Your task to perform on an android device: turn on improve location accuracy Image 0: 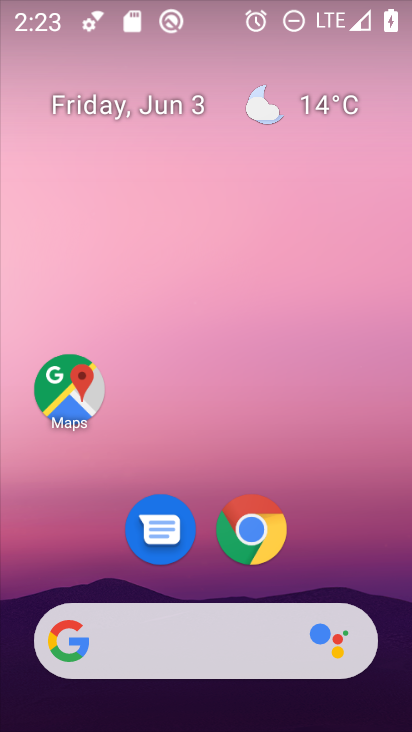
Step 0: drag from (370, 483) to (354, 120)
Your task to perform on an android device: turn on improve location accuracy Image 1: 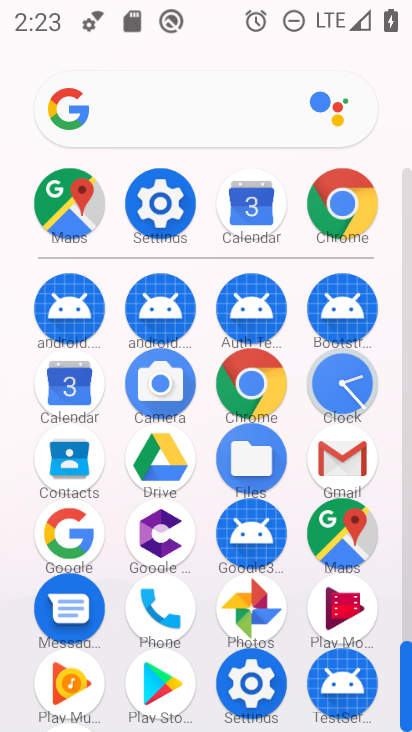
Step 1: click (170, 217)
Your task to perform on an android device: turn on improve location accuracy Image 2: 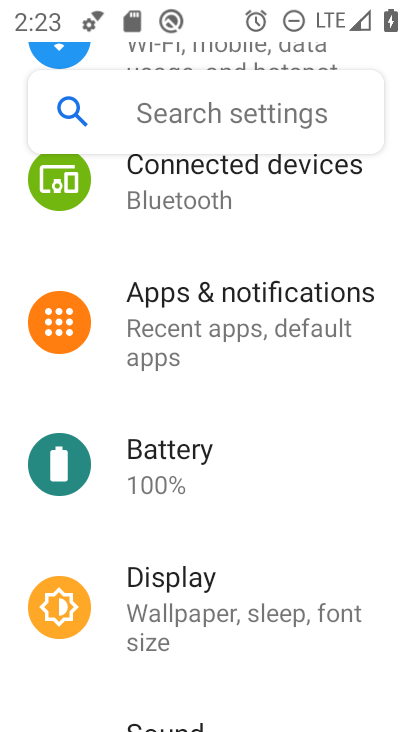
Step 2: drag from (335, 477) to (353, 350)
Your task to perform on an android device: turn on improve location accuracy Image 3: 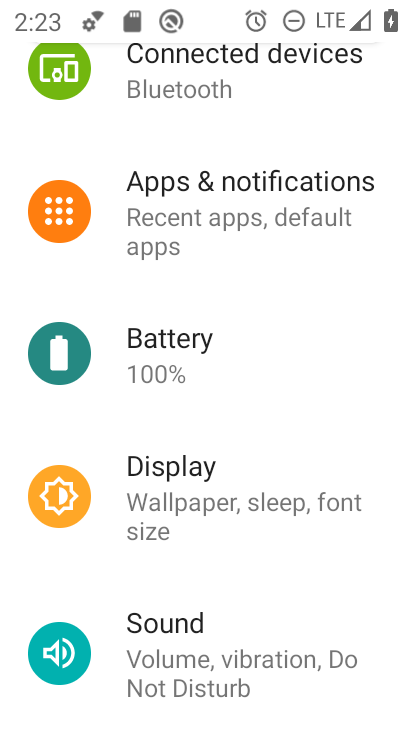
Step 3: drag from (359, 547) to (359, 418)
Your task to perform on an android device: turn on improve location accuracy Image 4: 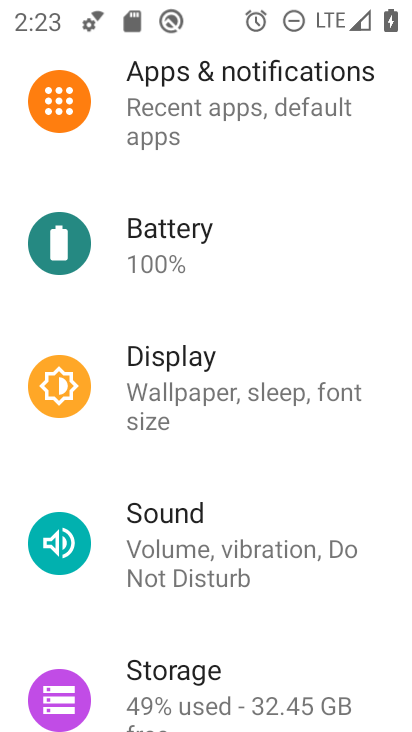
Step 4: drag from (375, 536) to (374, 409)
Your task to perform on an android device: turn on improve location accuracy Image 5: 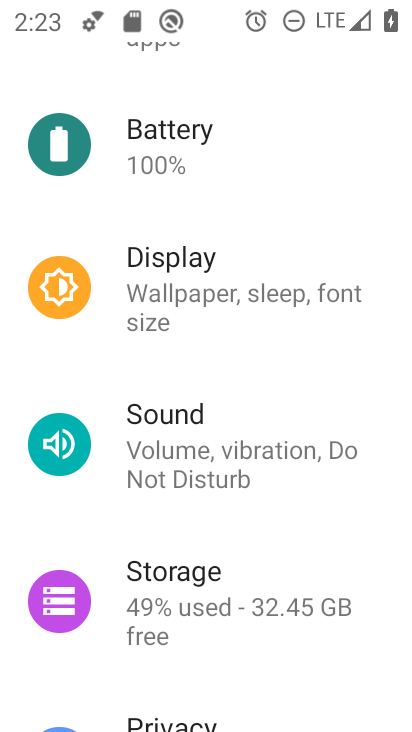
Step 5: drag from (373, 550) to (372, 425)
Your task to perform on an android device: turn on improve location accuracy Image 6: 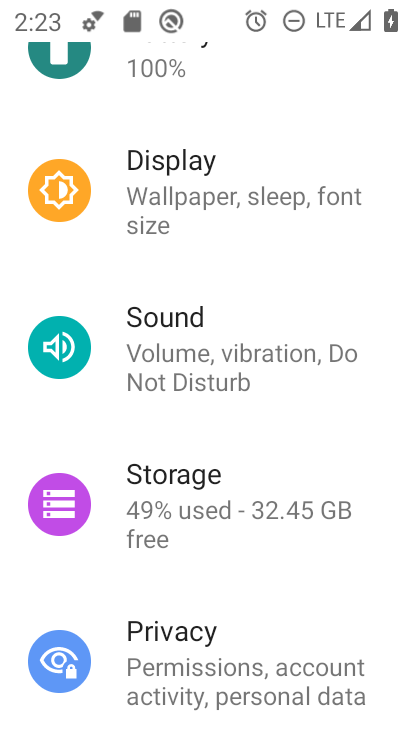
Step 6: drag from (369, 572) to (373, 441)
Your task to perform on an android device: turn on improve location accuracy Image 7: 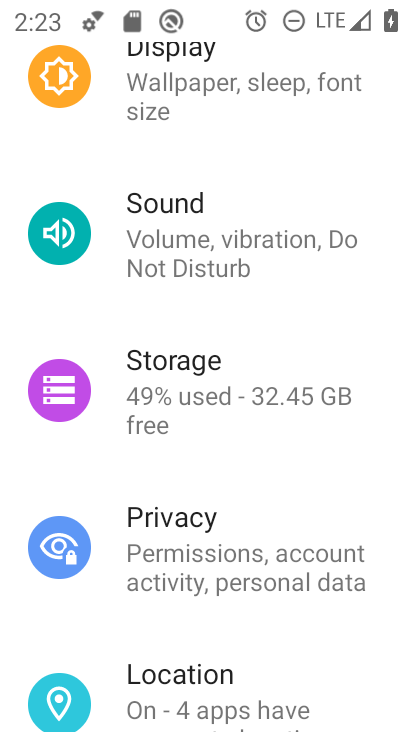
Step 7: drag from (372, 615) to (365, 462)
Your task to perform on an android device: turn on improve location accuracy Image 8: 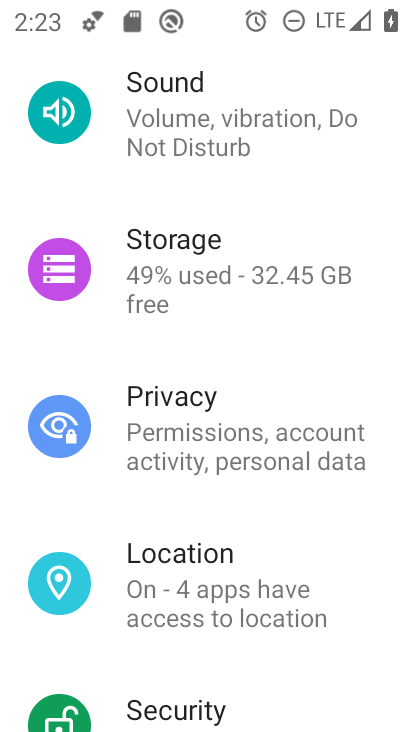
Step 8: drag from (372, 592) to (369, 455)
Your task to perform on an android device: turn on improve location accuracy Image 9: 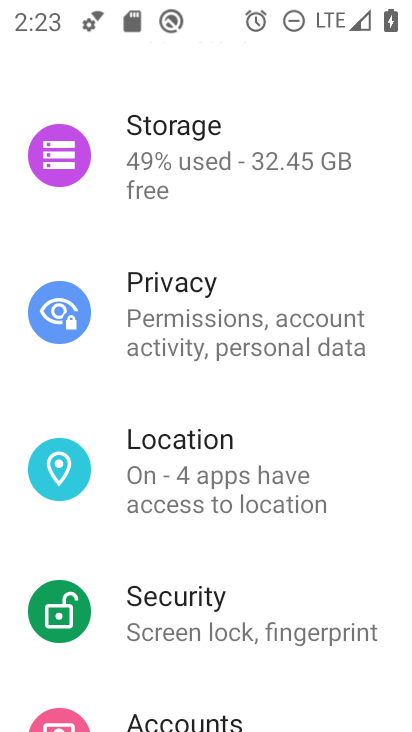
Step 9: drag from (350, 502) to (370, 376)
Your task to perform on an android device: turn on improve location accuracy Image 10: 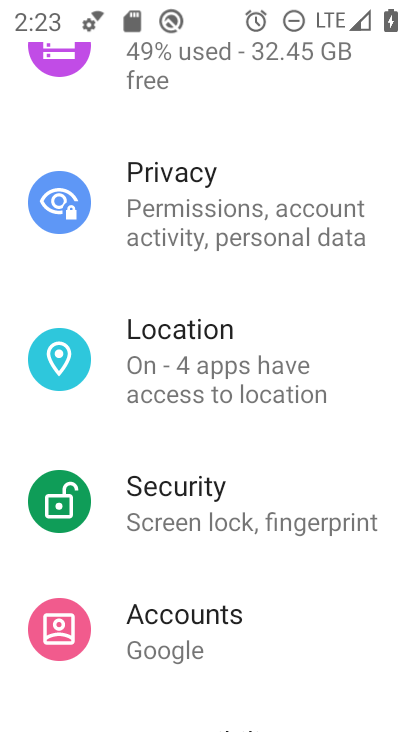
Step 10: drag from (366, 472) to (372, 371)
Your task to perform on an android device: turn on improve location accuracy Image 11: 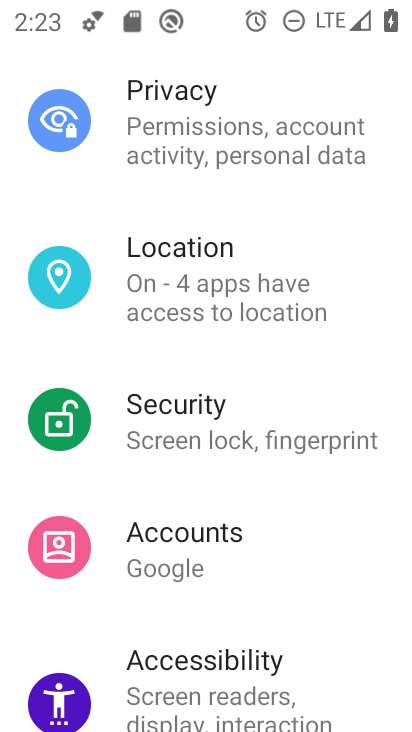
Step 11: click (266, 297)
Your task to perform on an android device: turn on improve location accuracy Image 12: 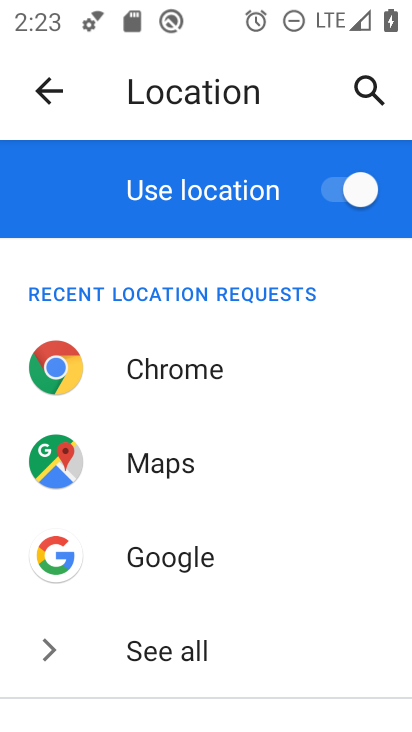
Step 12: drag from (307, 559) to (298, 477)
Your task to perform on an android device: turn on improve location accuracy Image 13: 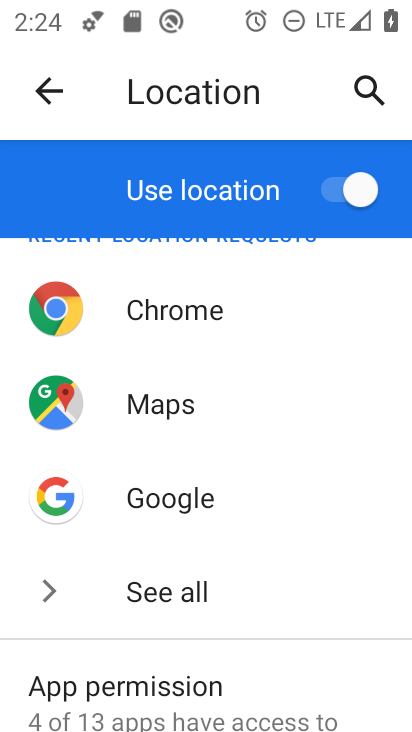
Step 13: drag from (279, 617) to (293, 457)
Your task to perform on an android device: turn on improve location accuracy Image 14: 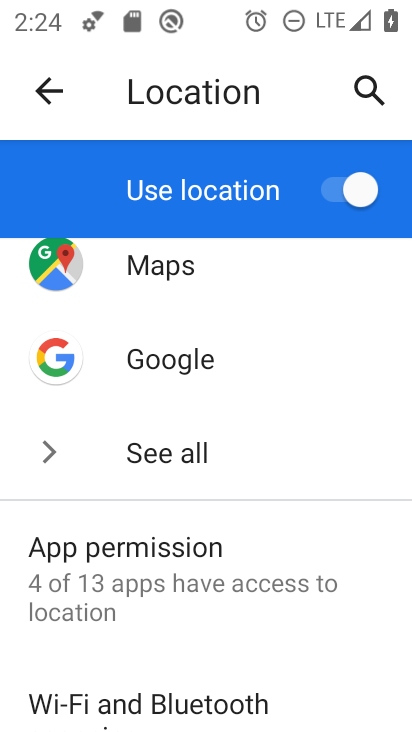
Step 14: drag from (291, 630) to (293, 512)
Your task to perform on an android device: turn on improve location accuracy Image 15: 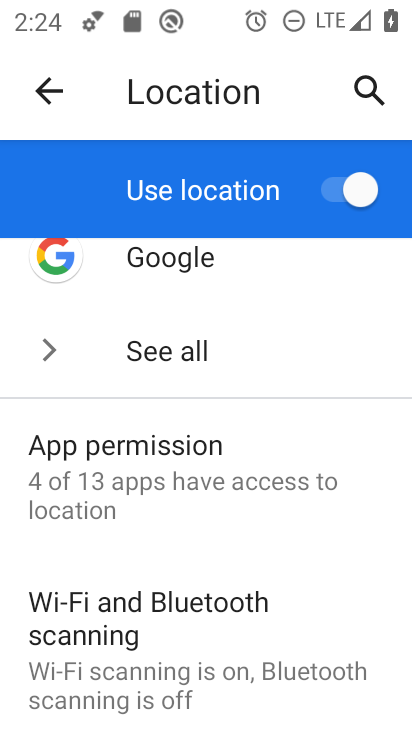
Step 15: drag from (286, 623) to (288, 479)
Your task to perform on an android device: turn on improve location accuracy Image 16: 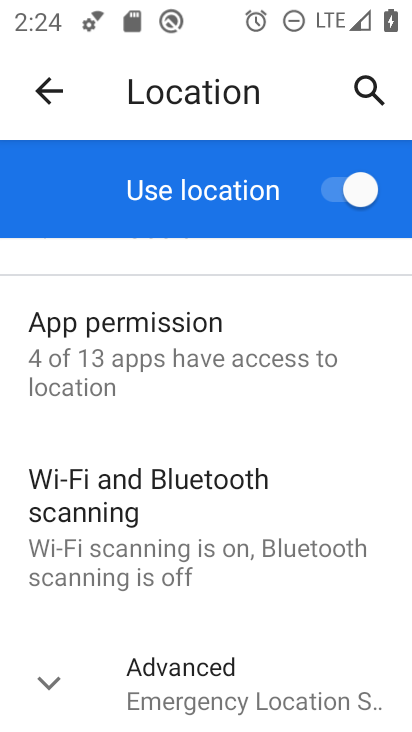
Step 16: drag from (282, 626) to (298, 404)
Your task to perform on an android device: turn on improve location accuracy Image 17: 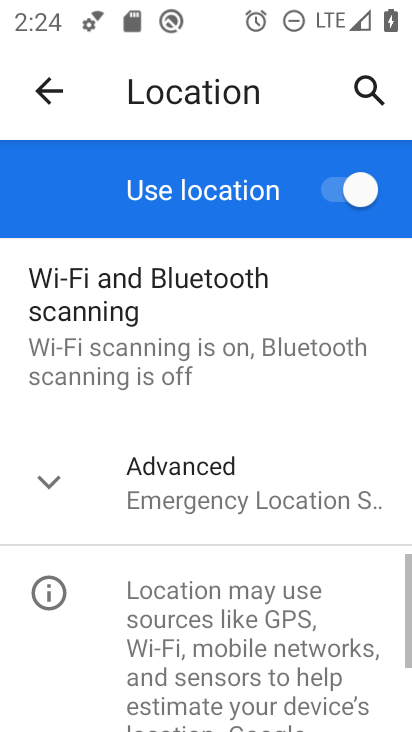
Step 17: click (292, 524)
Your task to perform on an android device: turn on improve location accuracy Image 18: 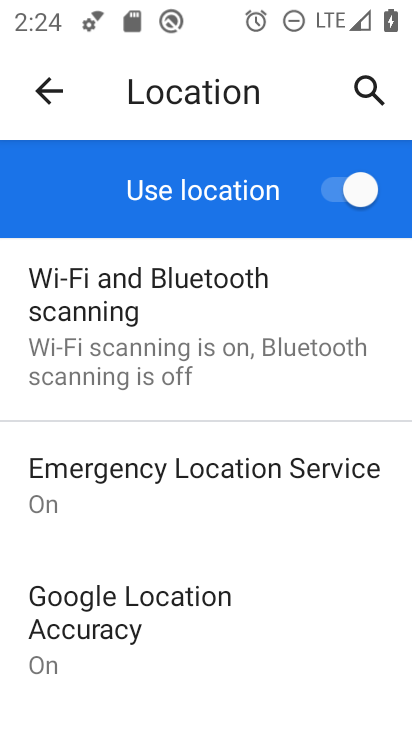
Step 18: drag from (306, 586) to (324, 464)
Your task to perform on an android device: turn on improve location accuracy Image 19: 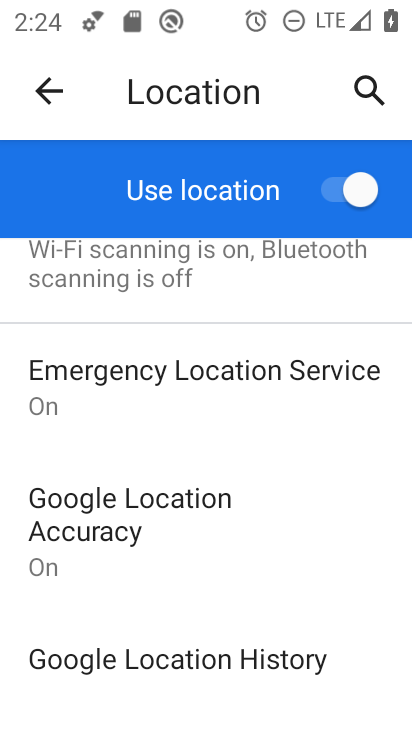
Step 19: drag from (335, 678) to (343, 521)
Your task to perform on an android device: turn on improve location accuracy Image 20: 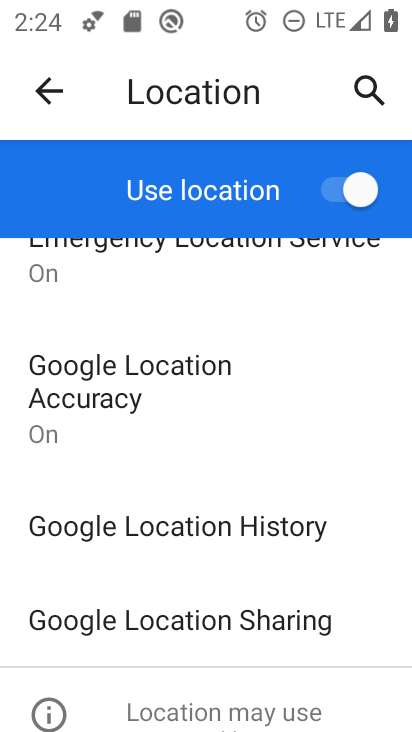
Step 20: drag from (321, 670) to (306, 560)
Your task to perform on an android device: turn on improve location accuracy Image 21: 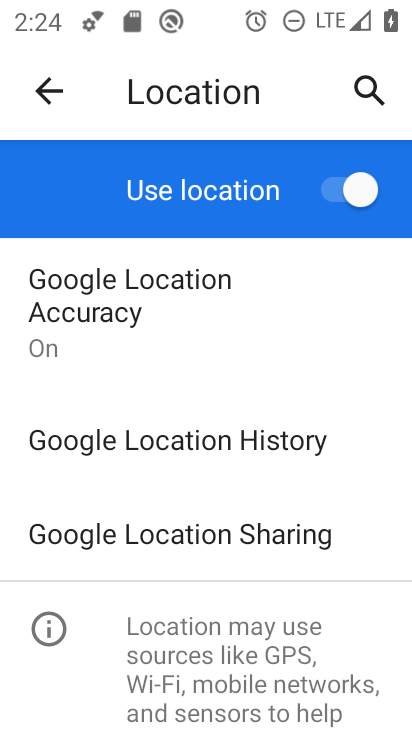
Step 21: click (156, 332)
Your task to perform on an android device: turn on improve location accuracy Image 22: 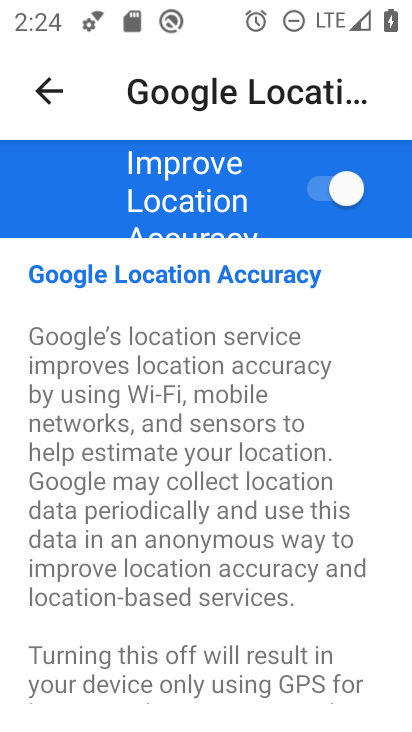
Step 22: task complete